Your task to perform on an android device: turn on javascript in the chrome app Image 0: 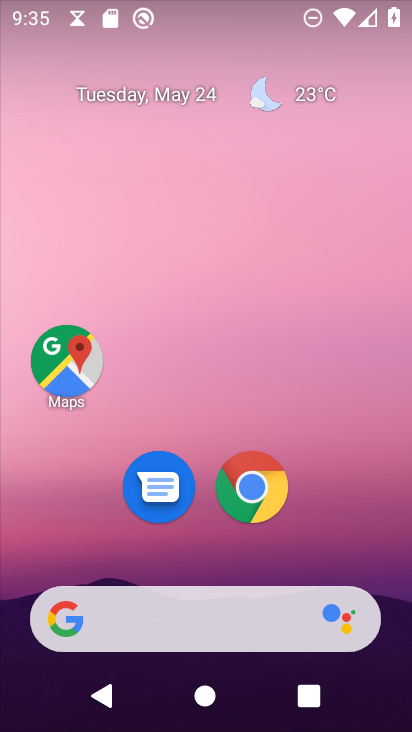
Step 0: press home button
Your task to perform on an android device: turn on javascript in the chrome app Image 1: 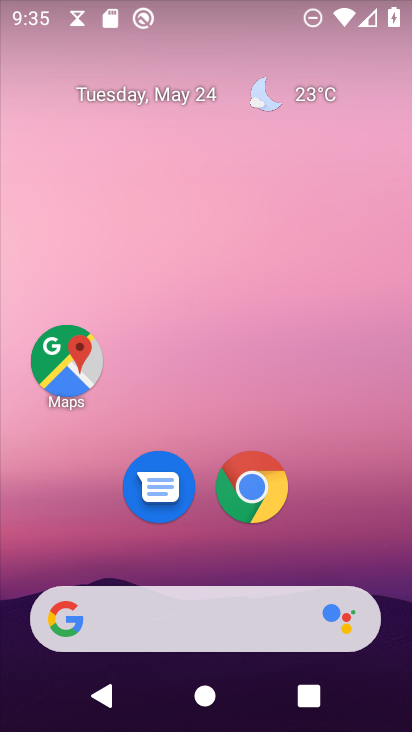
Step 1: click (253, 471)
Your task to perform on an android device: turn on javascript in the chrome app Image 2: 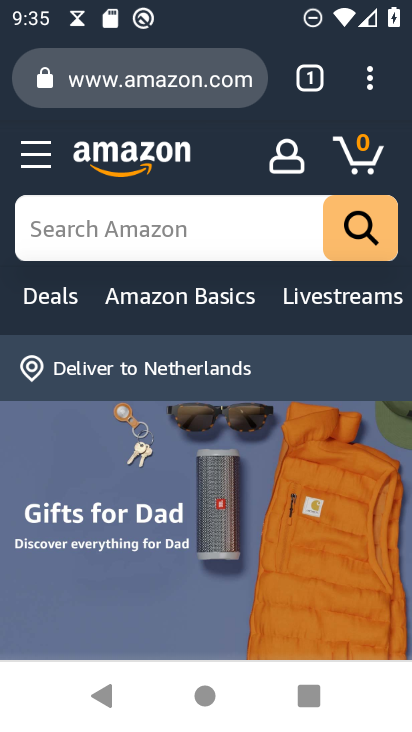
Step 2: click (372, 74)
Your task to perform on an android device: turn on javascript in the chrome app Image 3: 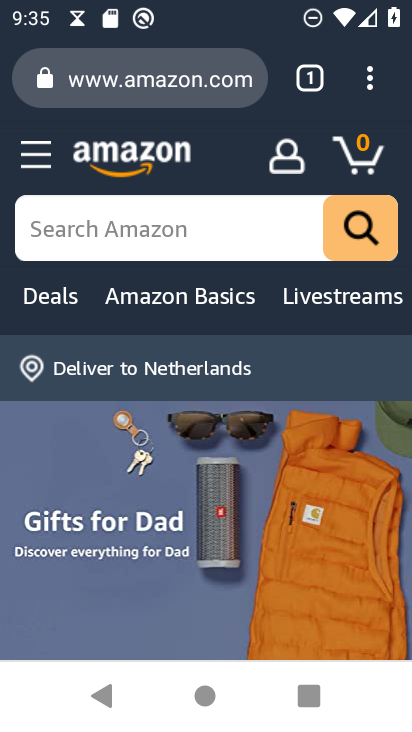
Step 3: click (361, 83)
Your task to perform on an android device: turn on javascript in the chrome app Image 4: 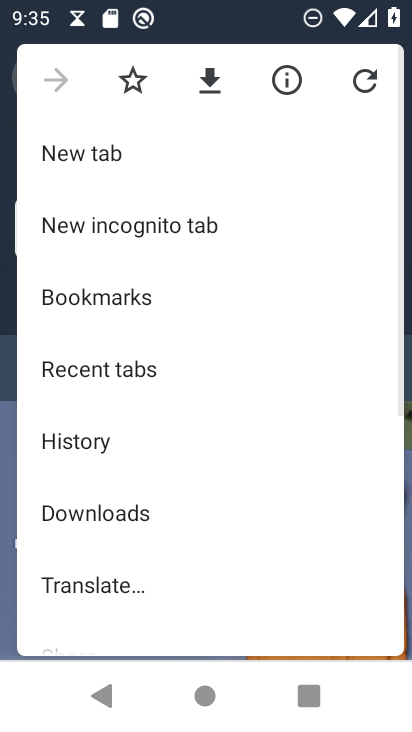
Step 4: drag from (7, 659) to (204, 140)
Your task to perform on an android device: turn on javascript in the chrome app Image 5: 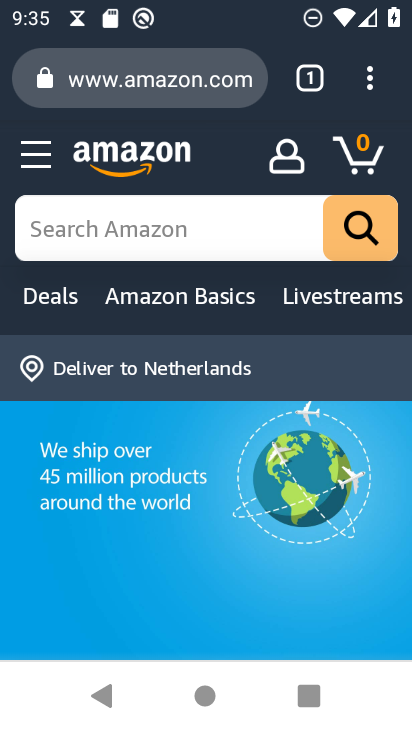
Step 5: click (369, 78)
Your task to perform on an android device: turn on javascript in the chrome app Image 6: 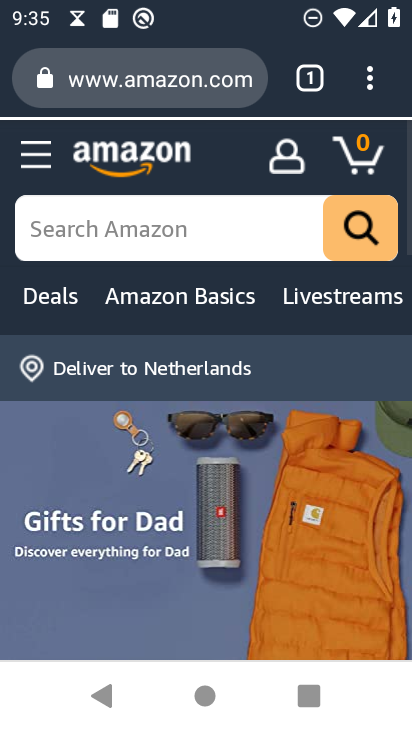
Step 6: click (353, 90)
Your task to perform on an android device: turn on javascript in the chrome app Image 7: 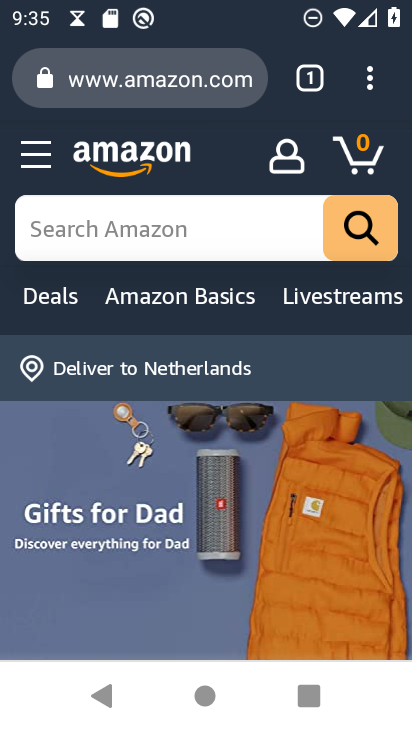
Step 7: click (363, 71)
Your task to perform on an android device: turn on javascript in the chrome app Image 8: 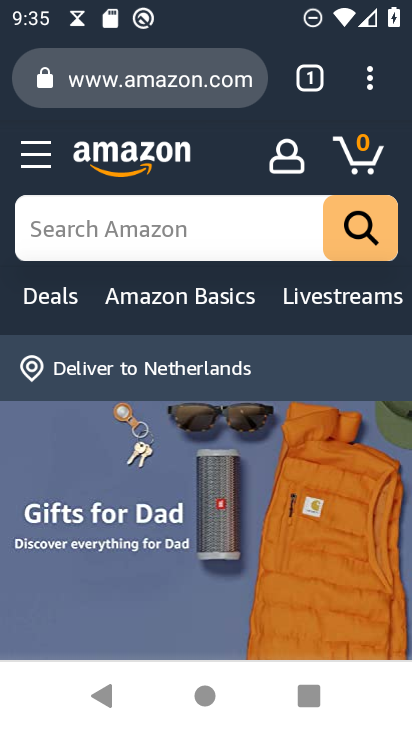
Step 8: click (373, 74)
Your task to perform on an android device: turn on javascript in the chrome app Image 9: 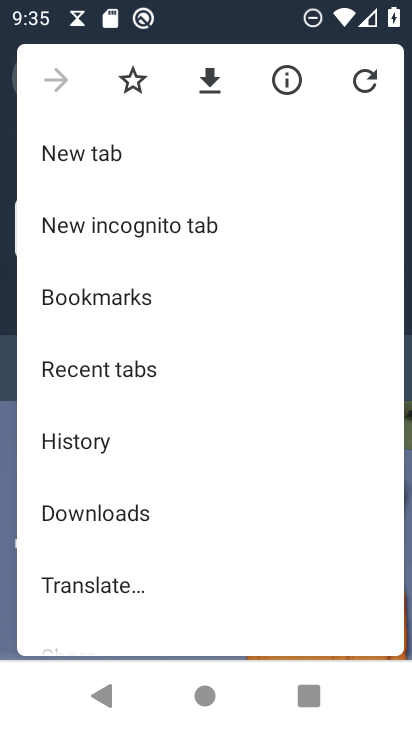
Step 9: drag from (18, 537) to (224, 129)
Your task to perform on an android device: turn on javascript in the chrome app Image 10: 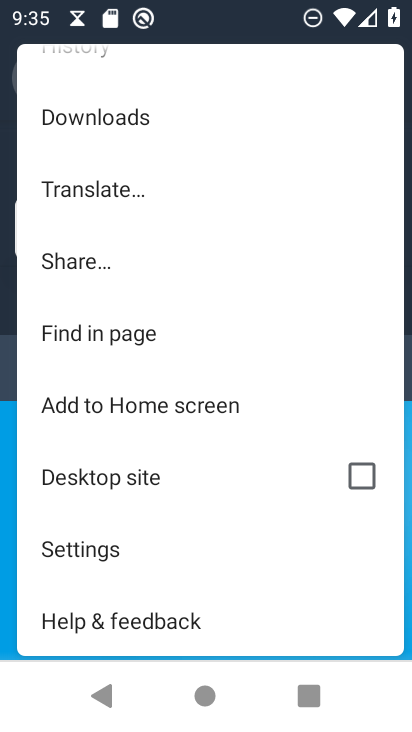
Step 10: click (78, 564)
Your task to perform on an android device: turn on javascript in the chrome app Image 11: 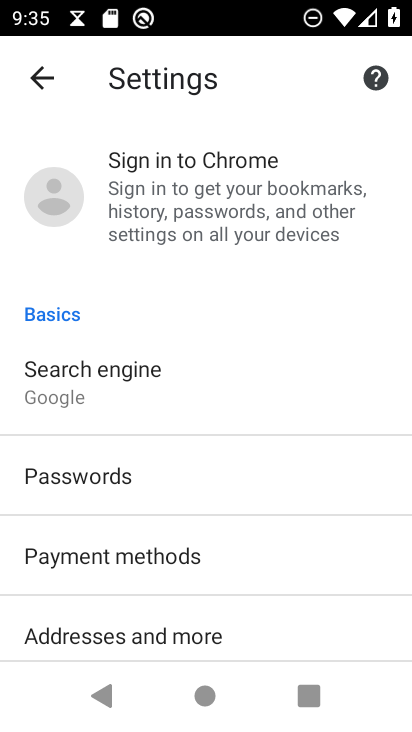
Step 11: drag from (6, 555) to (177, 261)
Your task to perform on an android device: turn on javascript in the chrome app Image 12: 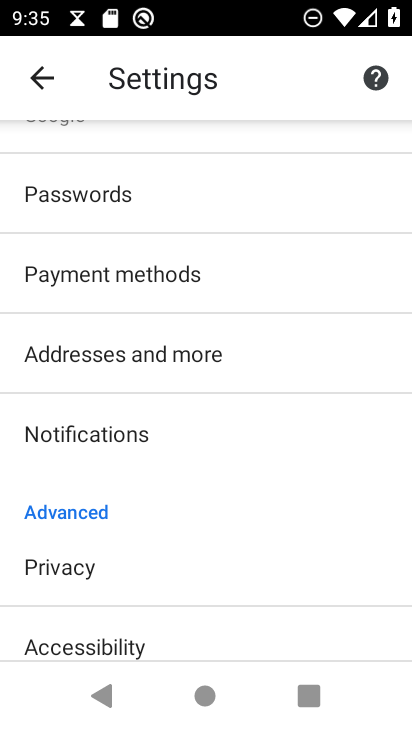
Step 12: drag from (20, 565) to (191, 296)
Your task to perform on an android device: turn on javascript in the chrome app Image 13: 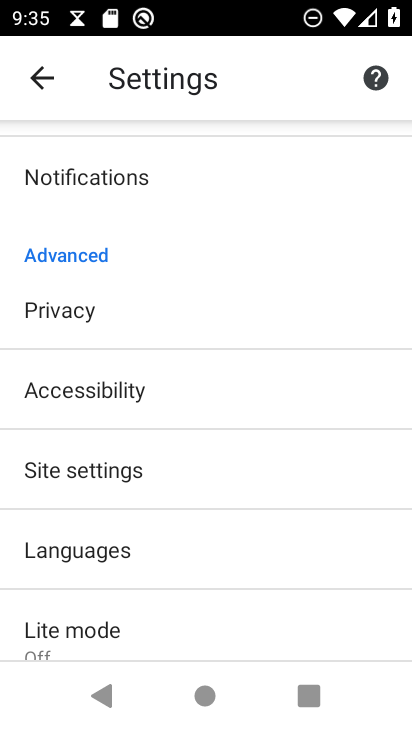
Step 13: click (99, 463)
Your task to perform on an android device: turn on javascript in the chrome app Image 14: 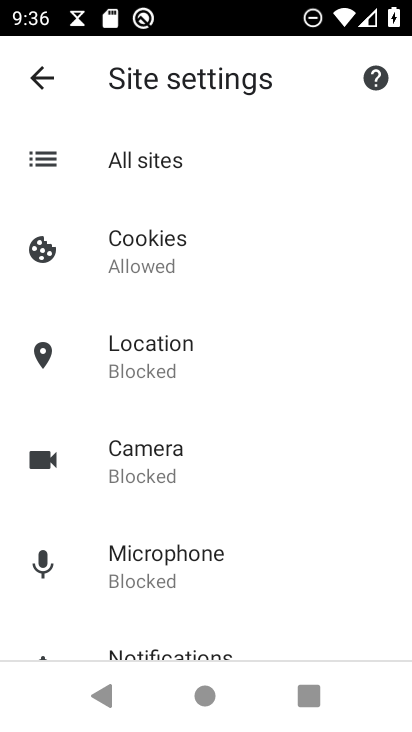
Step 14: drag from (20, 583) to (354, 129)
Your task to perform on an android device: turn on javascript in the chrome app Image 15: 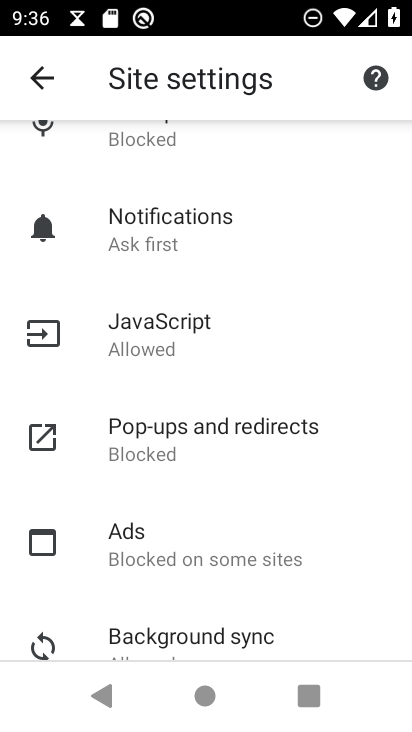
Step 15: click (185, 321)
Your task to perform on an android device: turn on javascript in the chrome app Image 16: 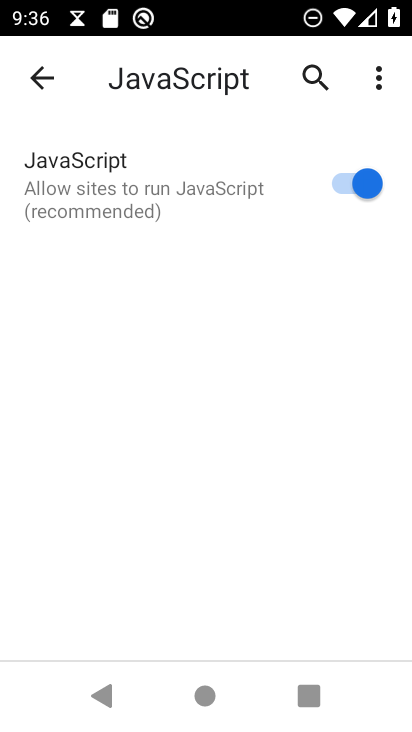
Step 16: task complete